Your task to perform on an android device: change the clock display to show seconds Image 0: 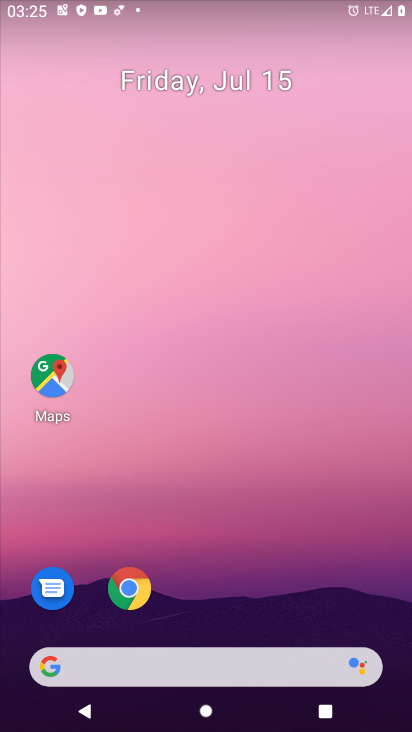
Step 0: drag from (207, 662) to (189, 161)
Your task to perform on an android device: change the clock display to show seconds Image 1: 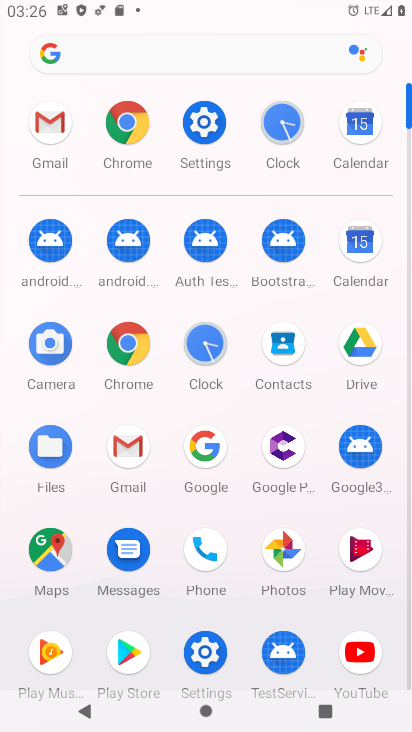
Step 1: click (283, 121)
Your task to perform on an android device: change the clock display to show seconds Image 2: 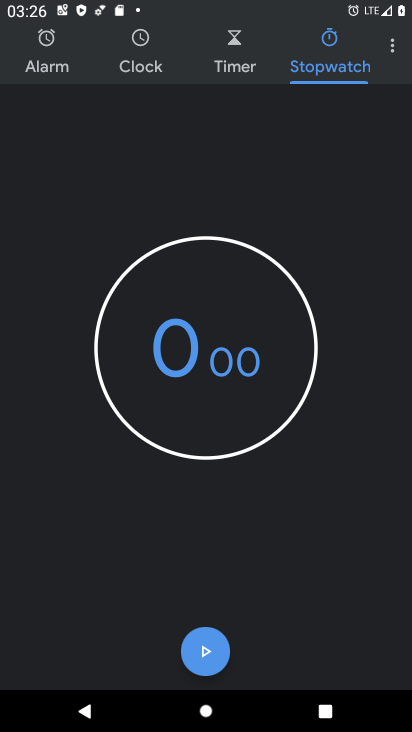
Step 2: click (394, 47)
Your task to perform on an android device: change the clock display to show seconds Image 3: 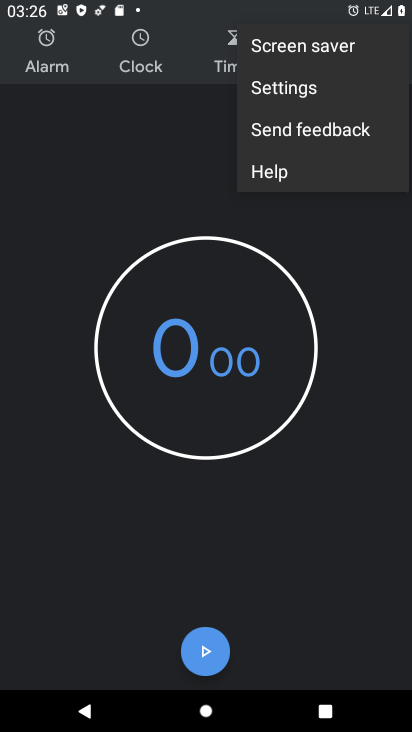
Step 3: click (305, 96)
Your task to perform on an android device: change the clock display to show seconds Image 4: 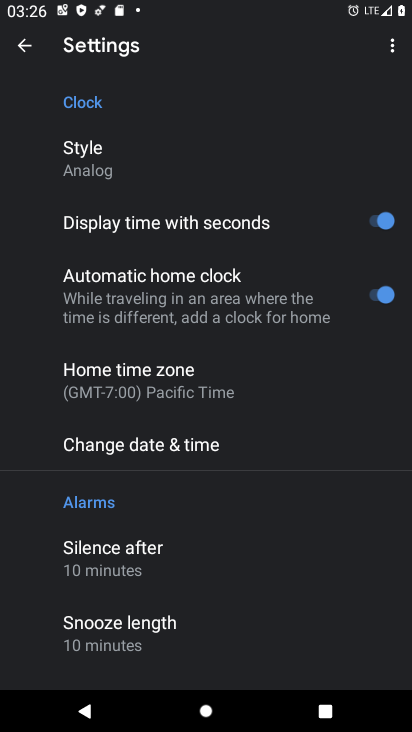
Step 4: click (387, 219)
Your task to perform on an android device: change the clock display to show seconds Image 5: 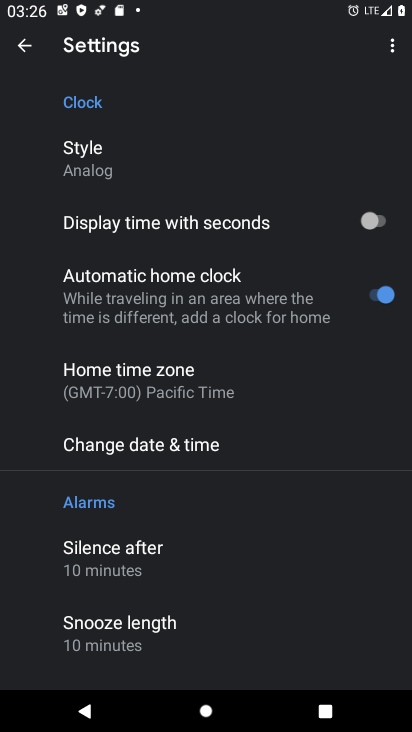
Step 5: task complete